Your task to perform on an android device: star an email in the gmail app Image 0: 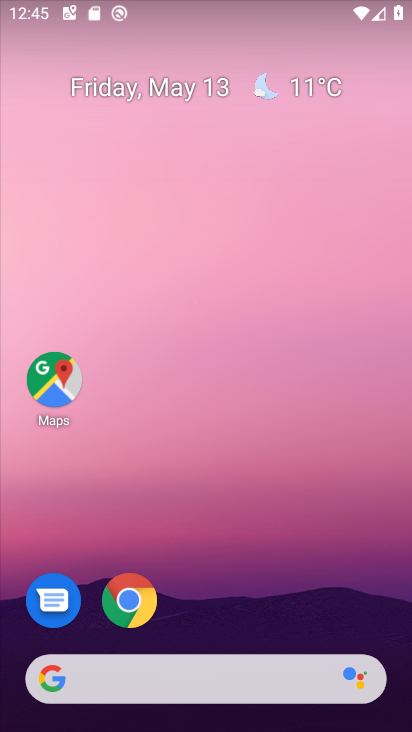
Step 0: drag from (200, 615) to (201, 164)
Your task to perform on an android device: star an email in the gmail app Image 1: 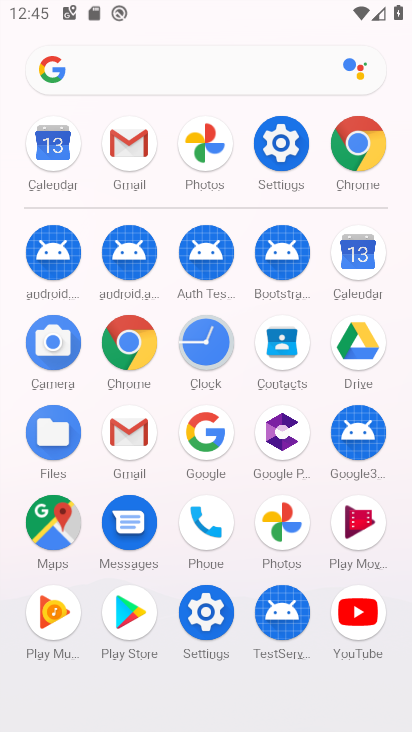
Step 1: click (122, 146)
Your task to perform on an android device: star an email in the gmail app Image 2: 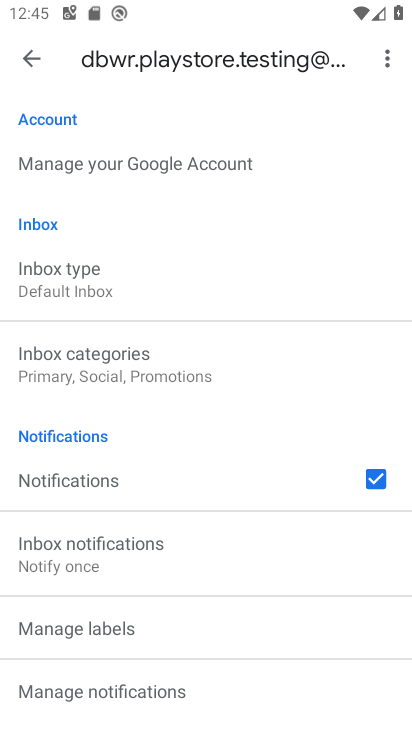
Step 2: click (25, 63)
Your task to perform on an android device: star an email in the gmail app Image 3: 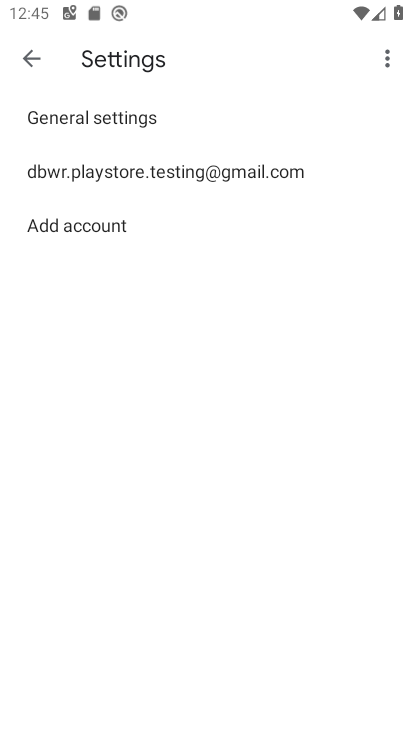
Step 3: click (25, 63)
Your task to perform on an android device: star an email in the gmail app Image 4: 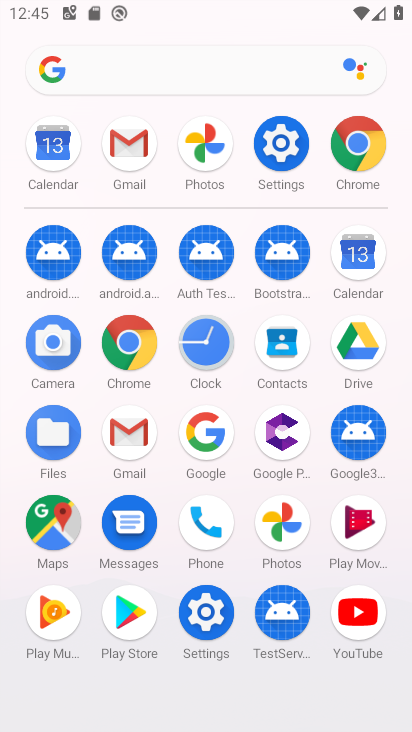
Step 4: click (135, 149)
Your task to perform on an android device: star an email in the gmail app Image 5: 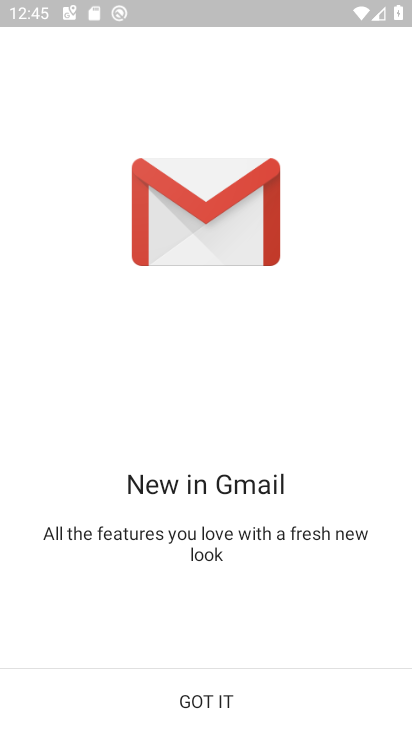
Step 5: click (192, 692)
Your task to perform on an android device: star an email in the gmail app Image 6: 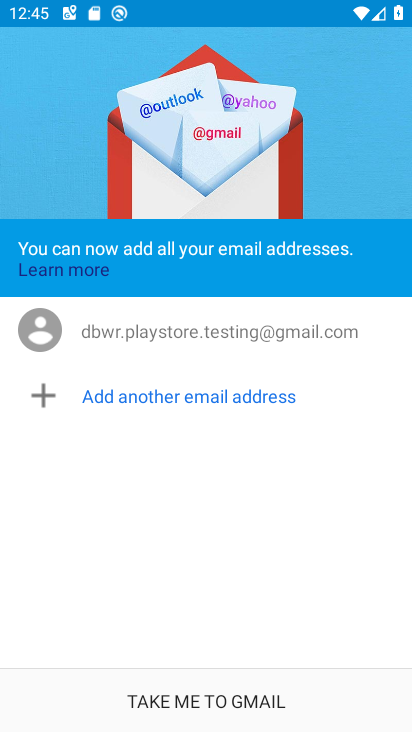
Step 6: click (192, 692)
Your task to perform on an android device: star an email in the gmail app Image 7: 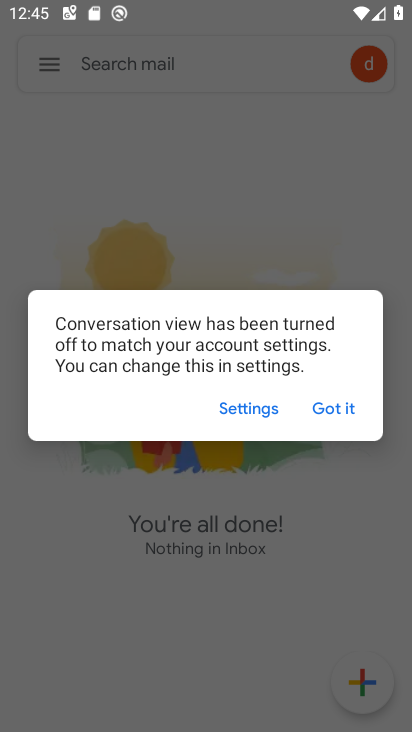
Step 7: click (327, 412)
Your task to perform on an android device: star an email in the gmail app Image 8: 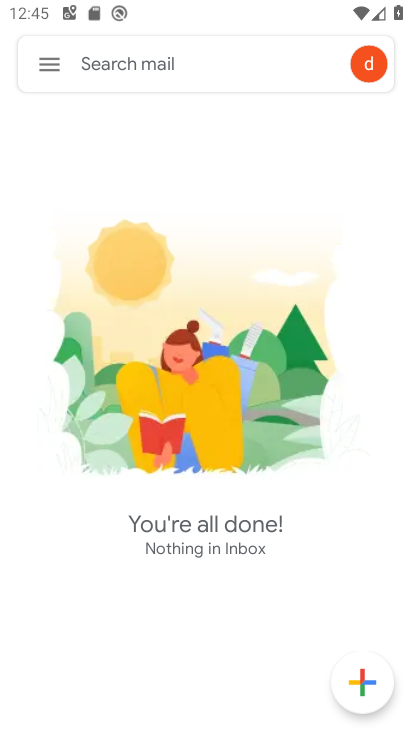
Step 8: task complete